Your task to perform on an android device: Go to display settings Image 0: 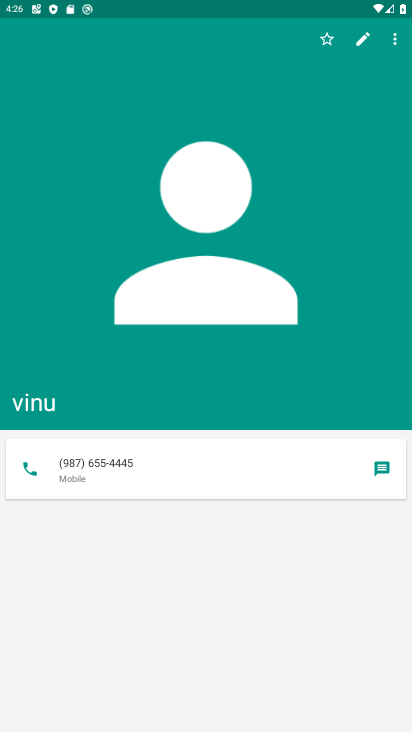
Step 0: press home button
Your task to perform on an android device: Go to display settings Image 1: 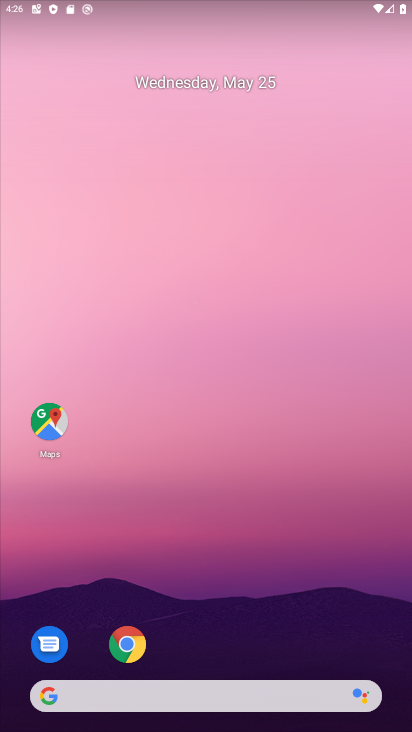
Step 1: drag from (243, 666) to (237, 27)
Your task to perform on an android device: Go to display settings Image 2: 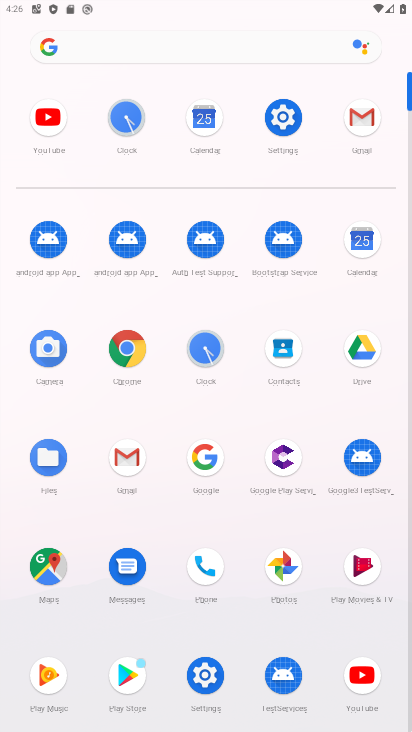
Step 2: click (284, 122)
Your task to perform on an android device: Go to display settings Image 3: 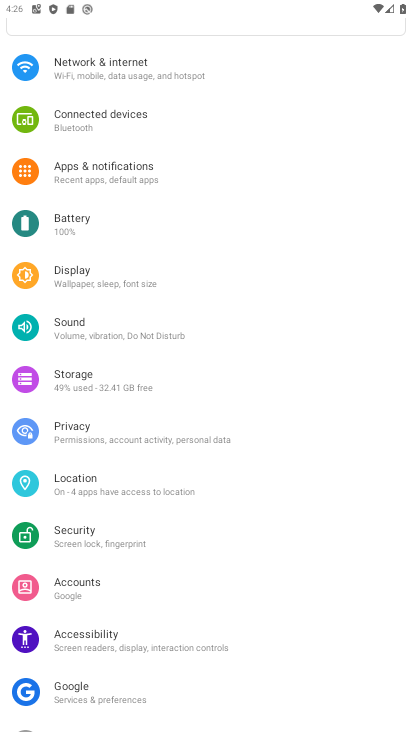
Step 3: click (71, 275)
Your task to perform on an android device: Go to display settings Image 4: 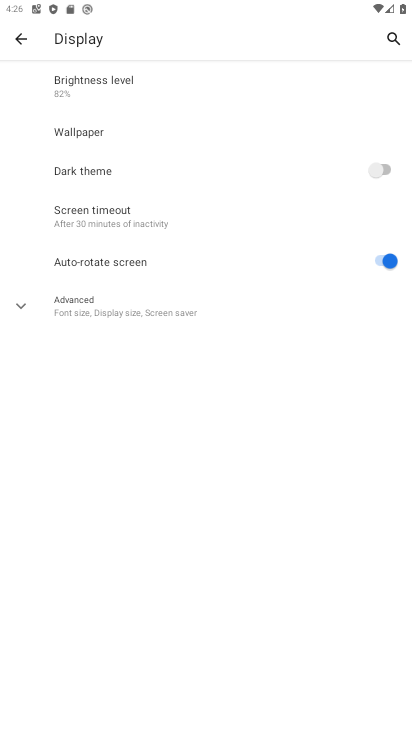
Step 4: task complete